Your task to perform on an android device: Go to ESPN.com Image 0: 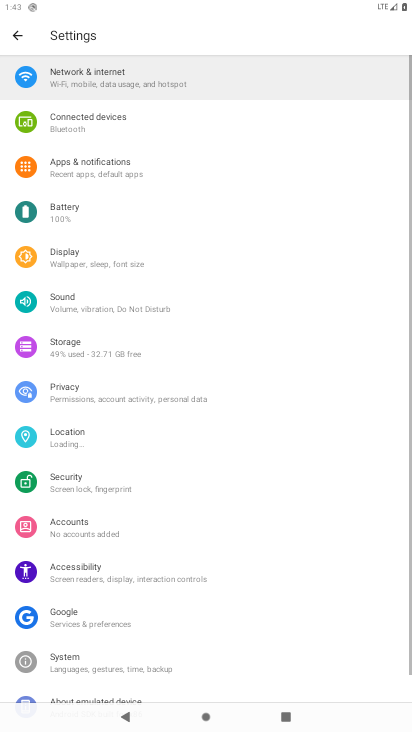
Step 0: drag from (238, 599) to (321, 730)
Your task to perform on an android device: Go to ESPN.com Image 1: 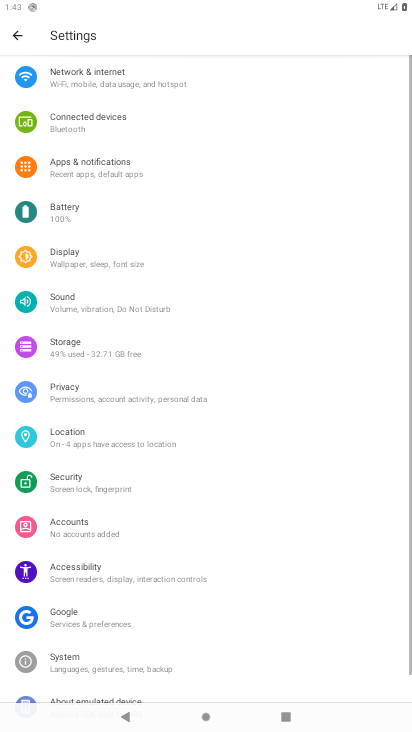
Step 1: press home button
Your task to perform on an android device: Go to ESPN.com Image 2: 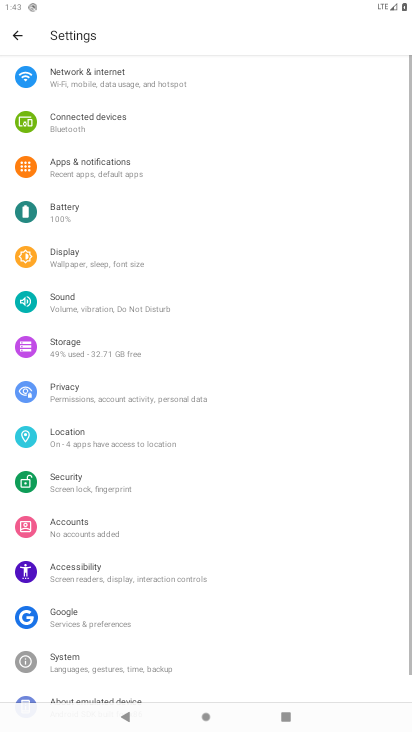
Step 2: click (409, 589)
Your task to perform on an android device: Go to ESPN.com Image 3: 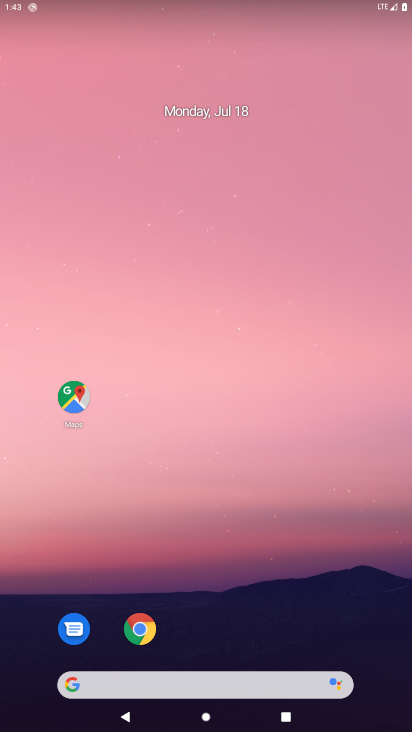
Step 3: click (123, 681)
Your task to perform on an android device: Go to ESPN.com Image 4: 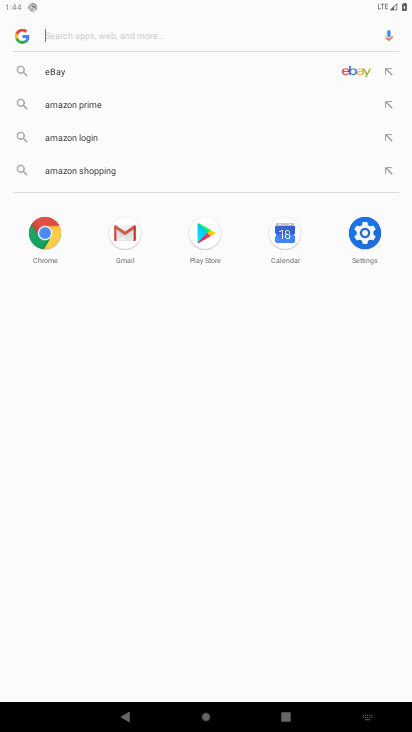
Step 4: type "ESPN.com"
Your task to perform on an android device: Go to ESPN.com Image 5: 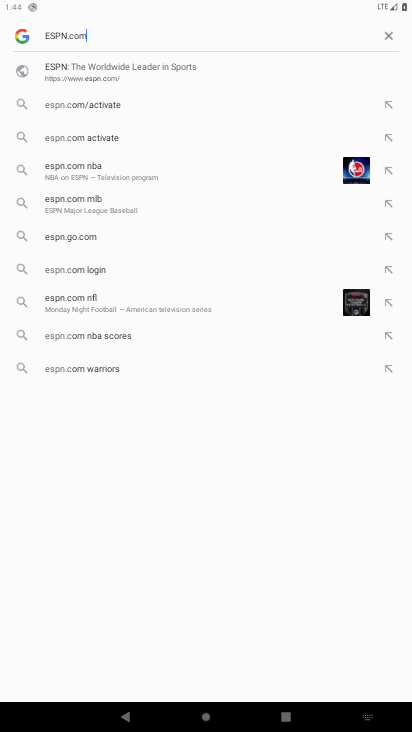
Step 5: press enter
Your task to perform on an android device: Go to ESPN.com Image 6: 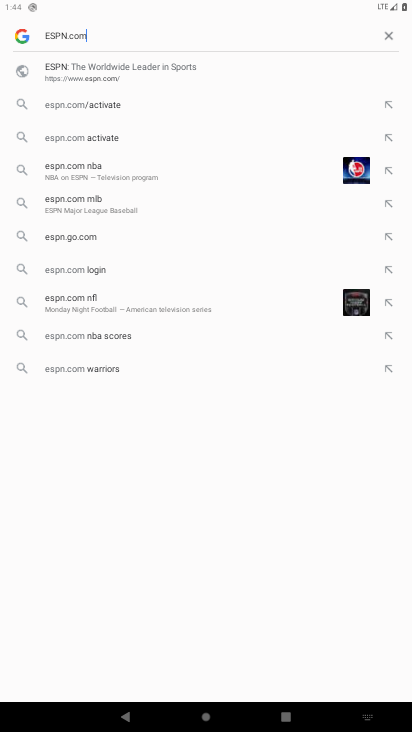
Step 6: type ""
Your task to perform on an android device: Go to ESPN.com Image 7: 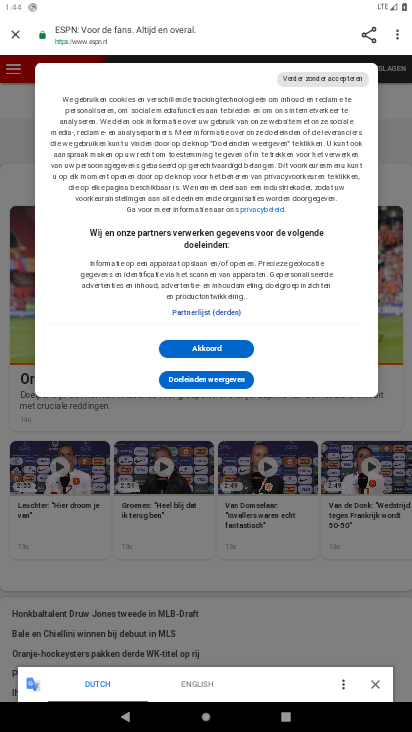
Step 7: task complete